Your task to perform on an android device: change the clock display to analog Image 0: 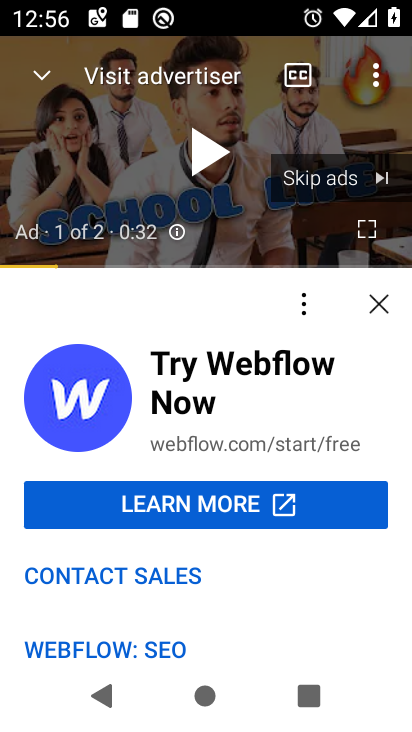
Step 0: press home button
Your task to perform on an android device: change the clock display to analog Image 1: 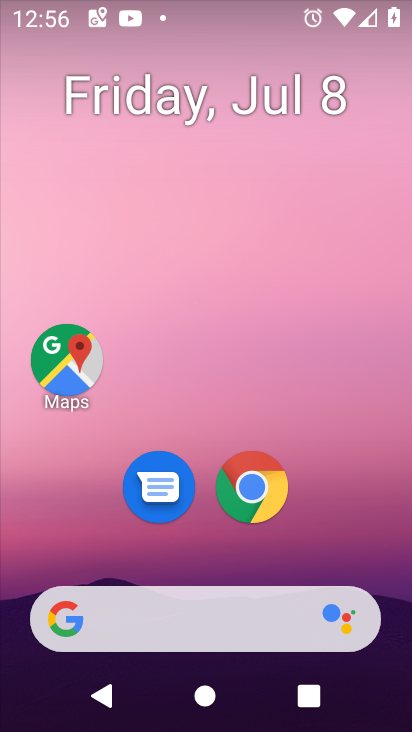
Step 1: drag from (371, 534) to (368, 134)
Your task to perform on an android device: change the clock display to analog Image 2: 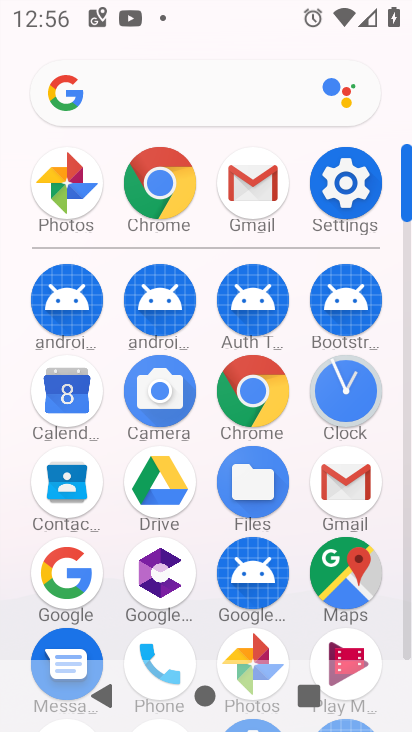
Step 2: click (349, 396)
Your task to perform on an android device: change the clock display to analog Image 3: 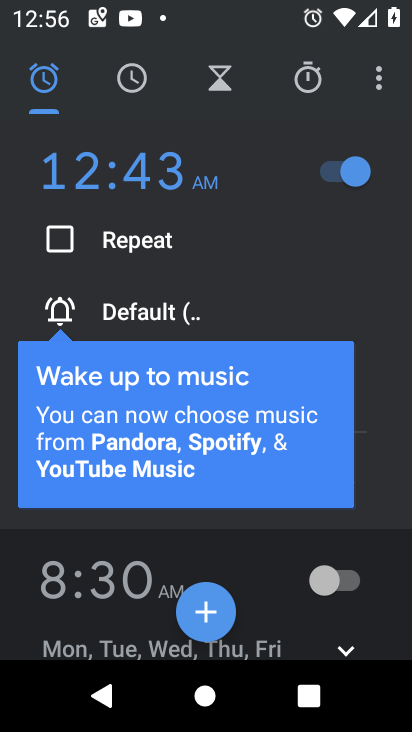
Step 3: click (378, 87)
Your task to perform on an android device: change the clock display to analog Image 4: 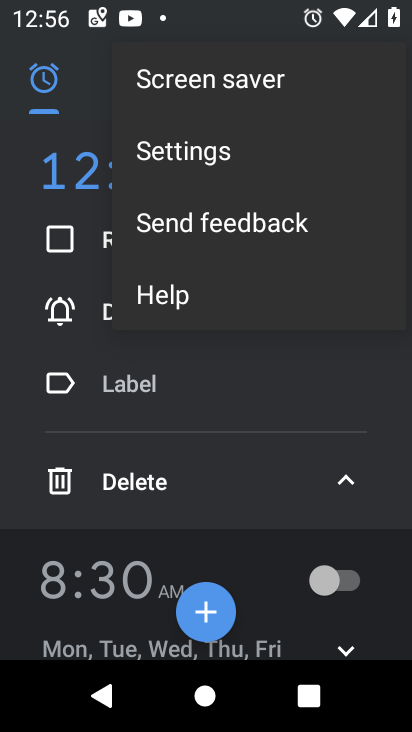
Step 4: click (224, 172)
Your task to perform on an android device: change the clock display to analog Image 5: 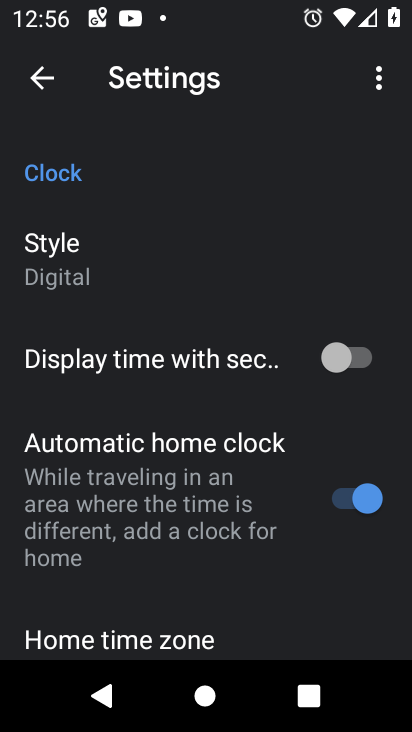
Step 5: drag from (281, 528) to (264, 335)
Your task to perform on an android device: change the clock display to analog Image 6: 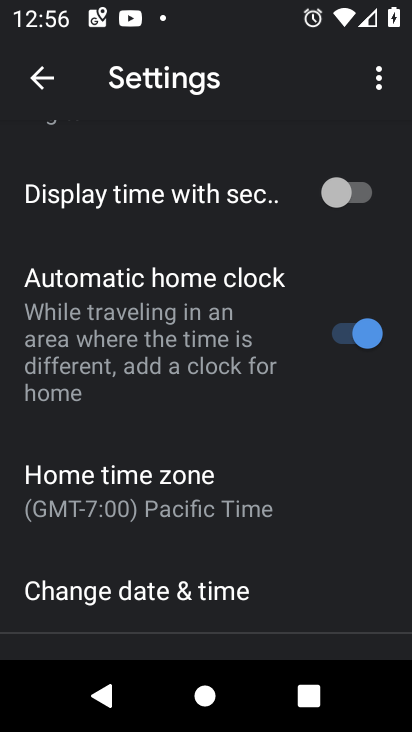
Step 6: drag from (257, 486) to (252, 351)
Your task to perform on an android device: change the clock display to analog Image 7: 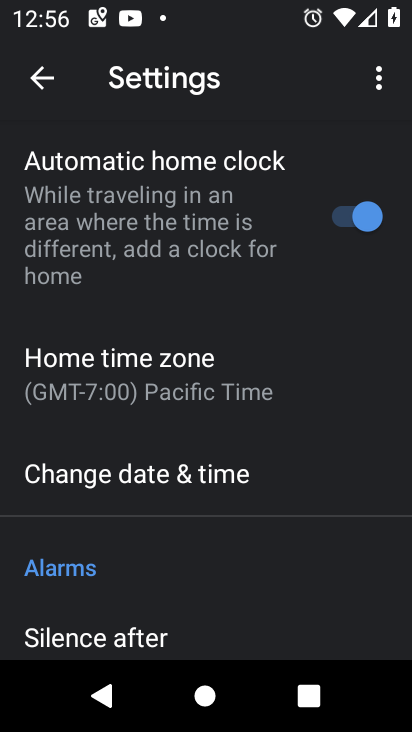
Step 7: drag from (298, 475) to (294, 410)
Your task to perform on an android device: change the clock display to analog Image 8: 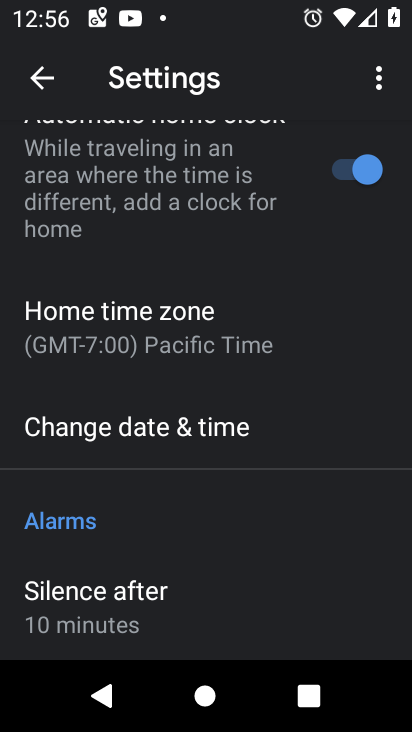
Step 8: drag from (309, 535) to (321, 413)
Your task to perform on an android device: change the clock display to analog Image 9: 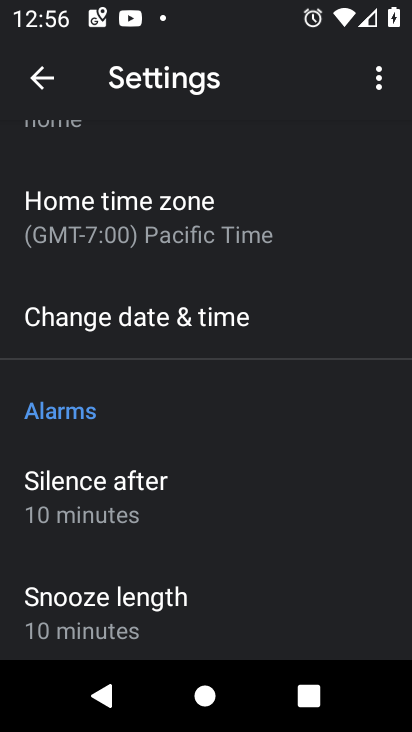
Step 9: drag from (346, 503) to (347, 381)
Your task to perform on an android device: change the clock display to analog Image 10: 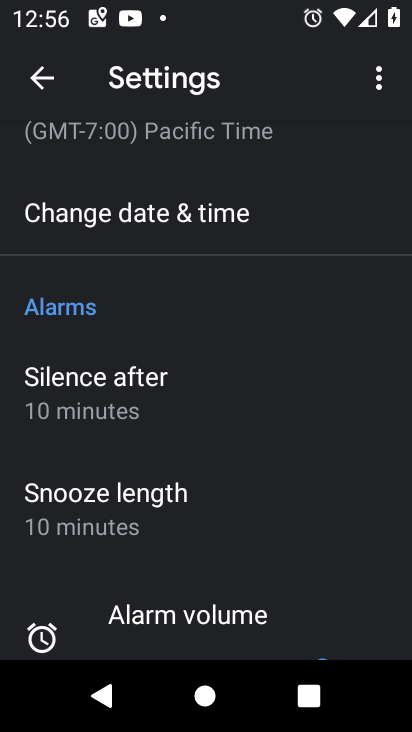
Step 10: drag from (333, 451) to (321, 318)
Your task to perform on an android device: change the clock display to analog Image 11: 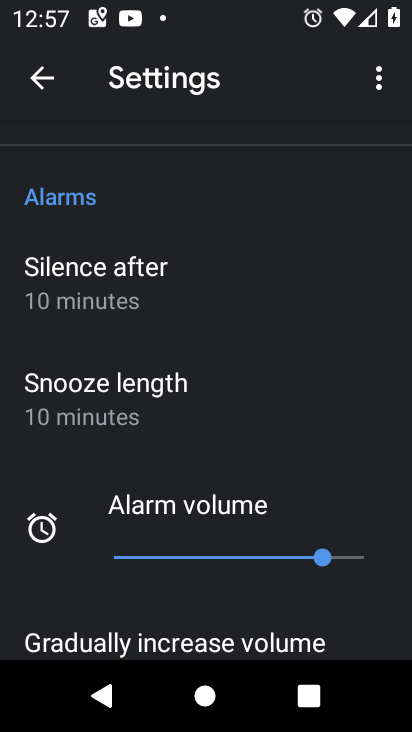
Step 11: drag from (357, 472) to (353, 296)
Your task to perform on an android device: change the clock display to analog Image 12: 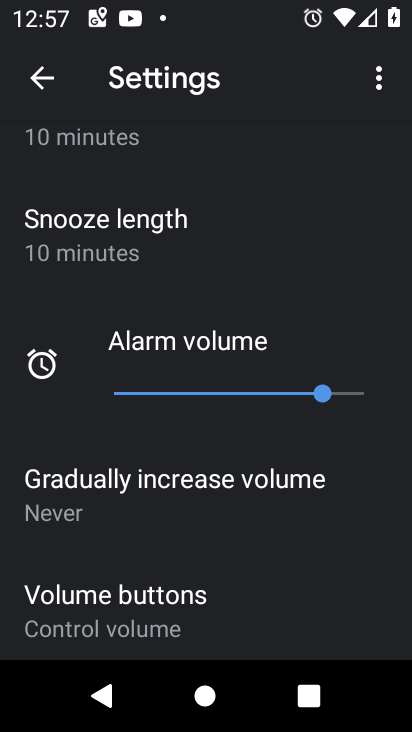
Step 12: drag from (364, 215) to (361, 379)
Your task to perform on an android device: change the clock display to analog Image 13: 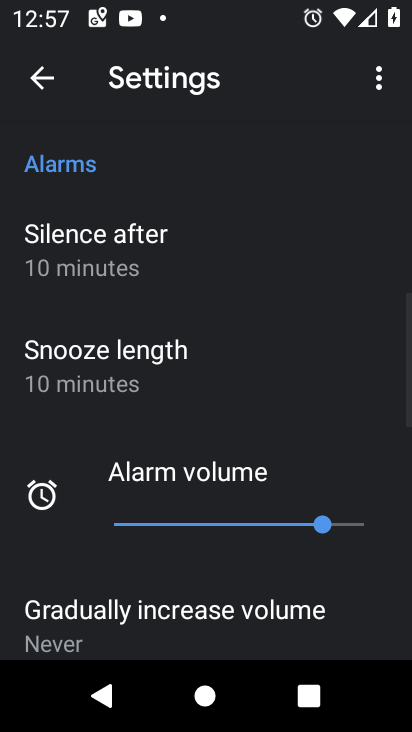
Step 13: drag from (367, 235) to (358, 381)
Your task to perform on an android device: change the clock display to analog Image 14: 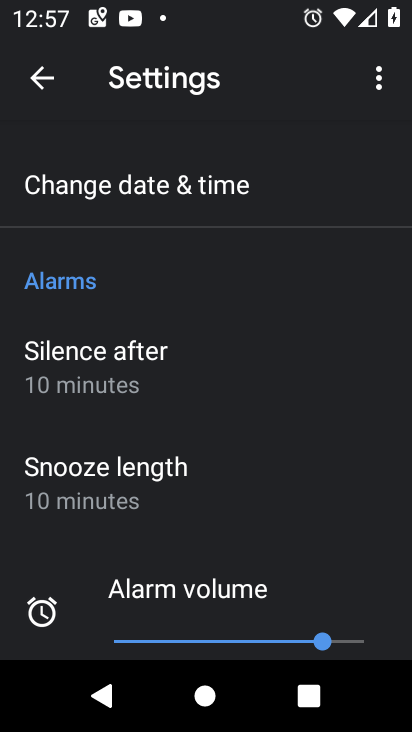
Step 14: drag from (349, 206) to (347, 339)
Your task to perform on an android device: change the clock display to analog Image 15: 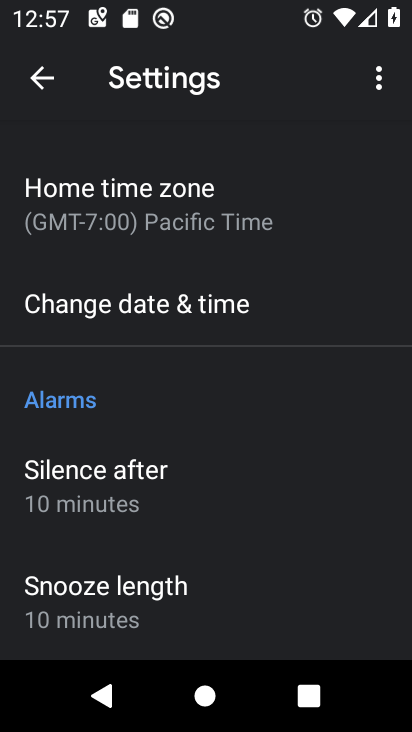
Step 15: drag from (347, 212) to (347, 333)
Your task to perform on an android device: change the clock display to analog Image 16: 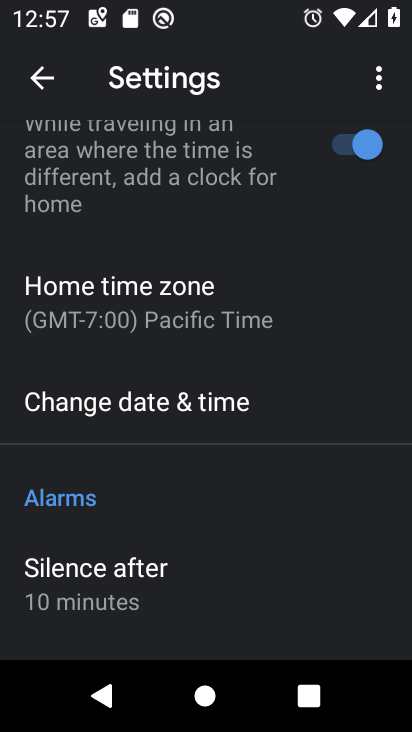
Step 16: drag from (347, 225) to (348, 371)
Your task to perform on an android device: change the clock display to analog Image 17: 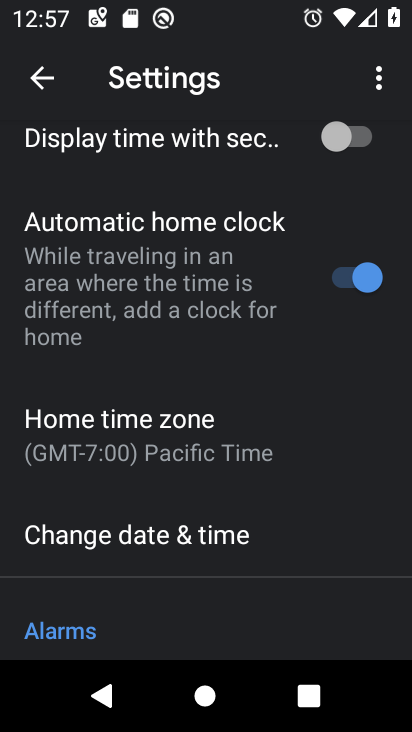
Step 17: drag from (324, 194) to (325, 358)
Your task to perform on an android device: change the clock display to analog Image 18: 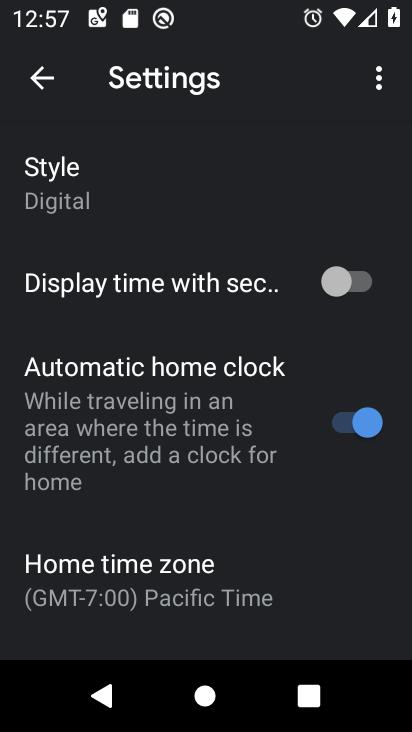
Step 18: click (127, 203)
Your task to perform on an android device: change the clock display to analog Image 19: 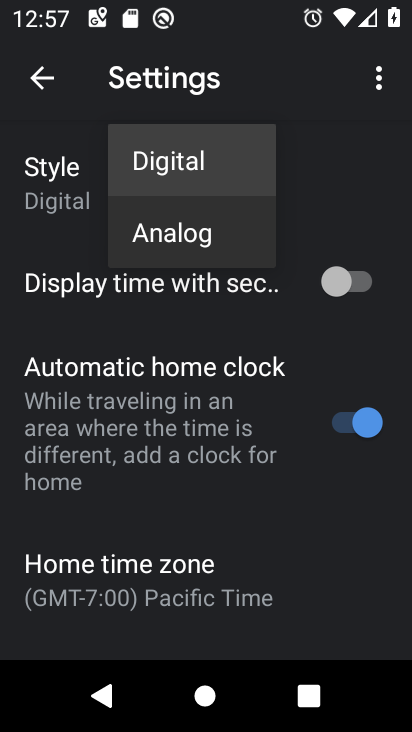
Step 19: click (144, 229)
Your task to perform on an android device: change the clock display to analog Image 20: 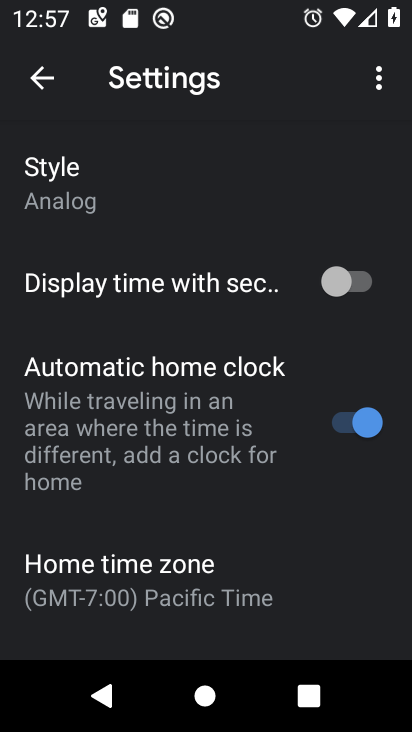
Step 20: task complete